Your task to perform on an android device: What is the news today? Image 0: 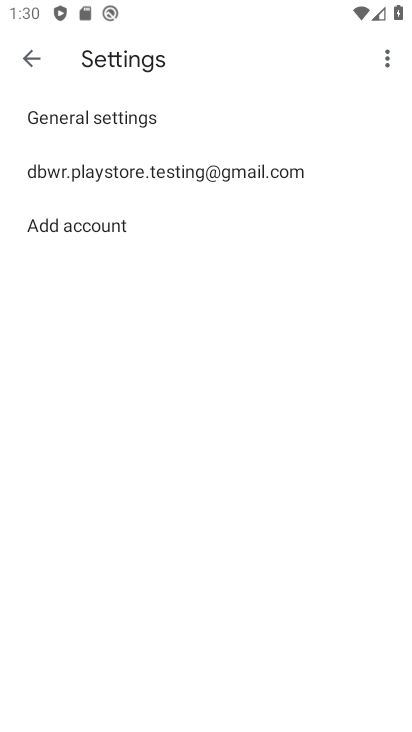
Step 0: press home button
Your task to perform on an android device: What is the news today? Image 1: 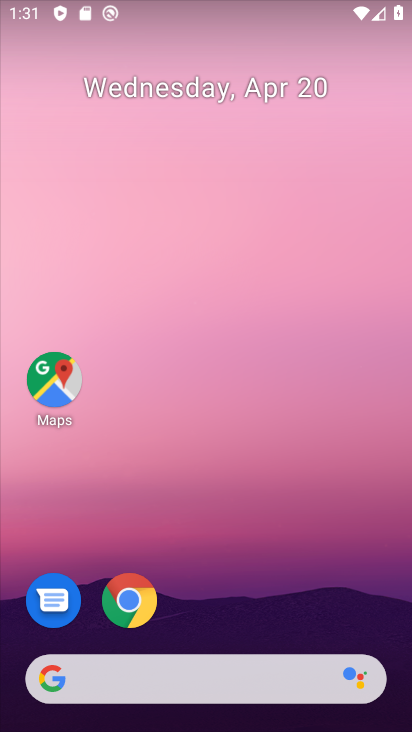
Step 1: click (242, 626)
Your task to perform on an android device: What is the news today? Image 2: 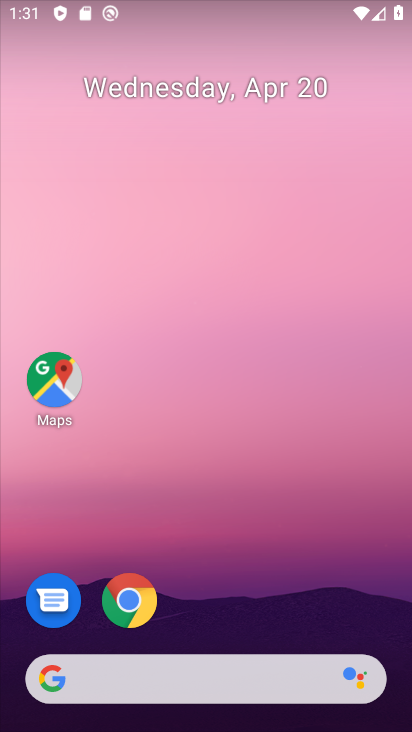
Step 2: drag from (242, 625) to (321, 279)
Your task to perform on an android device: What is the news today? Image 3: 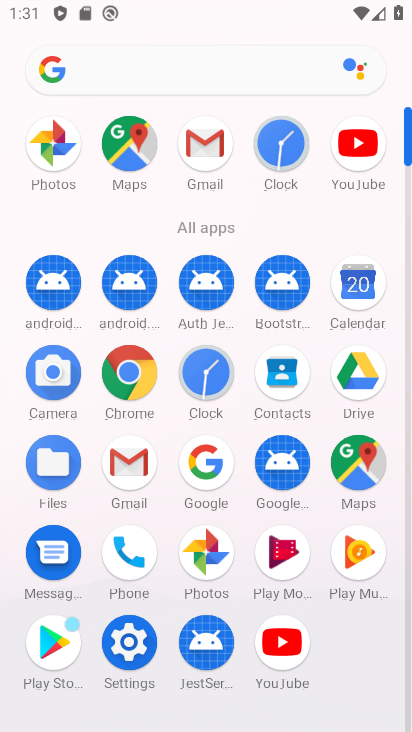
Step 3: click (139, 378)
Your task to perform on an android device: What is the news today? Image 4: 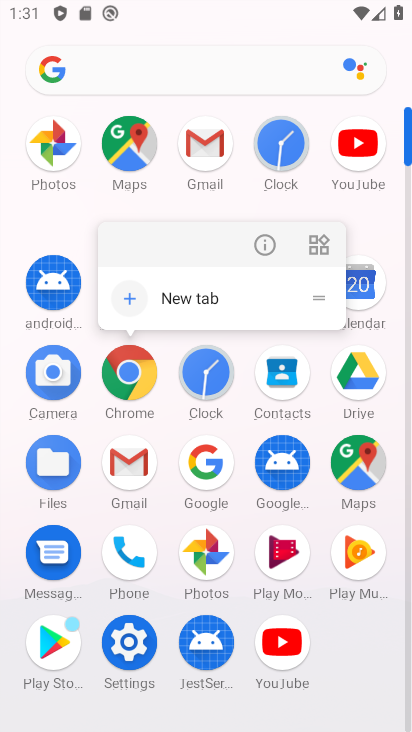
Step 4: click (139, 382)
Your task to perform on an android device: What is the news today? Image 5: 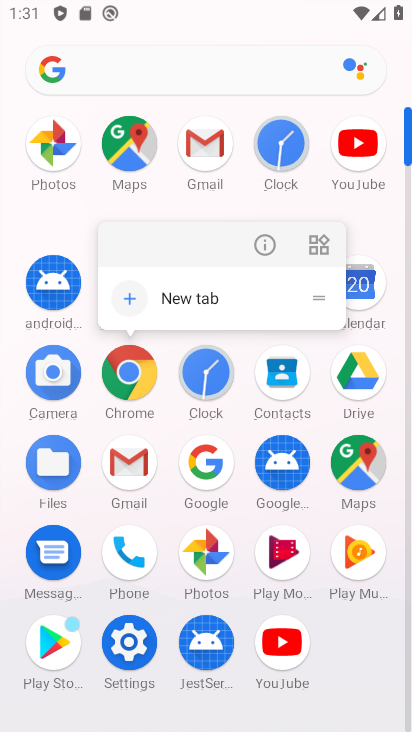
Step 5: click (118, 378)
Your task to perform on an android device: What is the news today? Image 6: 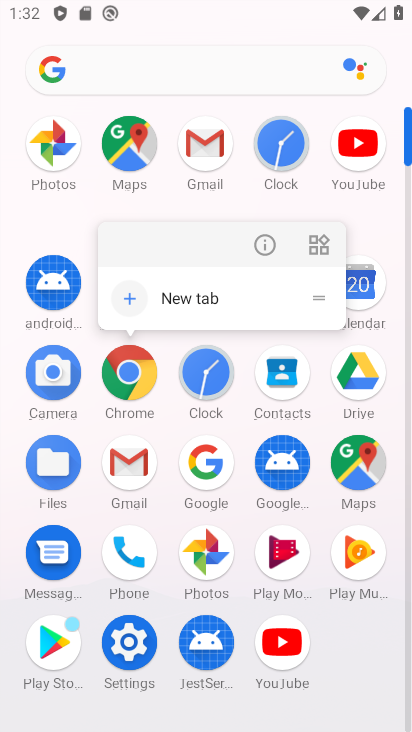
Step 6: click (129, 384)
Your task to perform on an android device: What is the news today? Image 7: 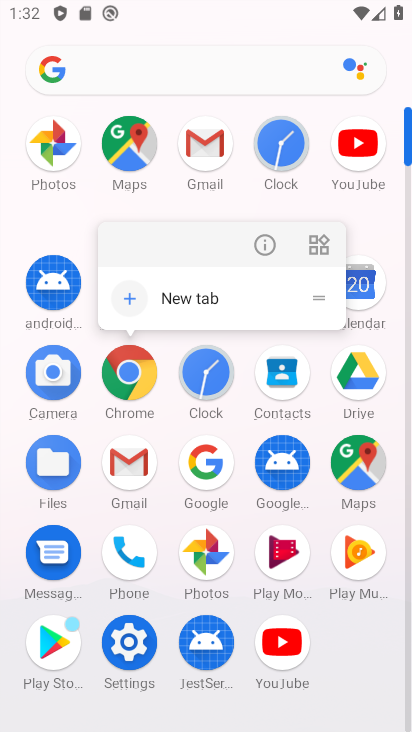
Step 7: click (130, 385)
Your task to perform on an android device: What is the news today? Image 8: 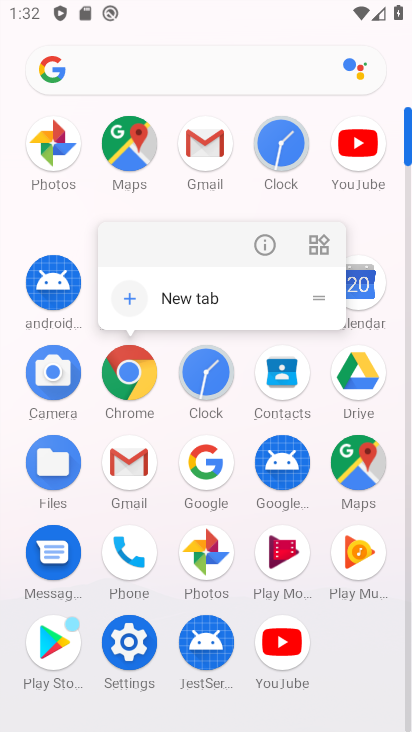
Step 8: click (130, 385)
Your task to perform on an android device: What is the news today? Image 9: 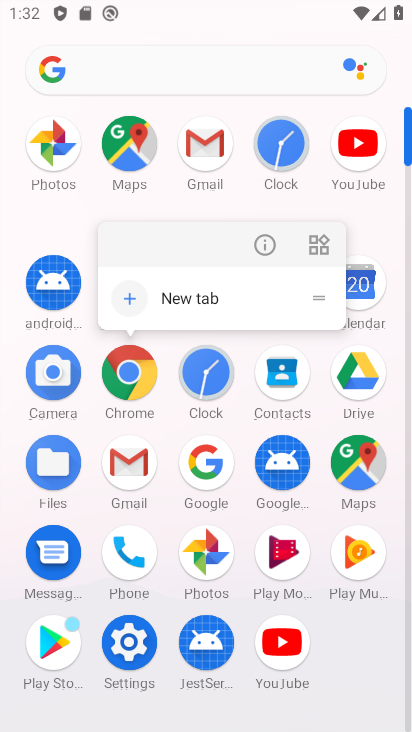
Step 9: task complete